Your task to perform on an android device: Show me recent news Image 0: 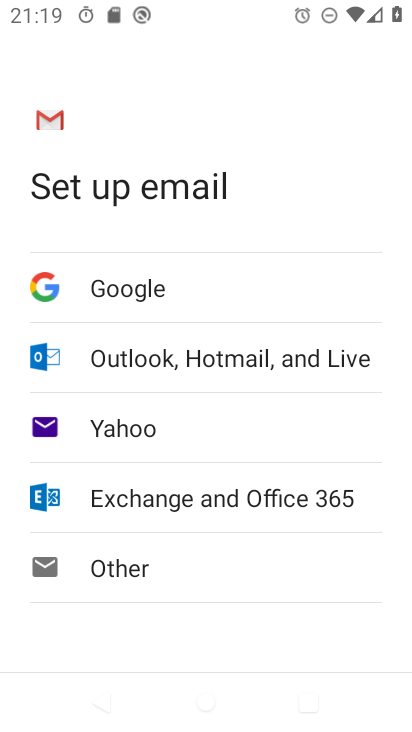
Step 0: press home button
Your task to perform on an android device: Show me recent news Image 1: 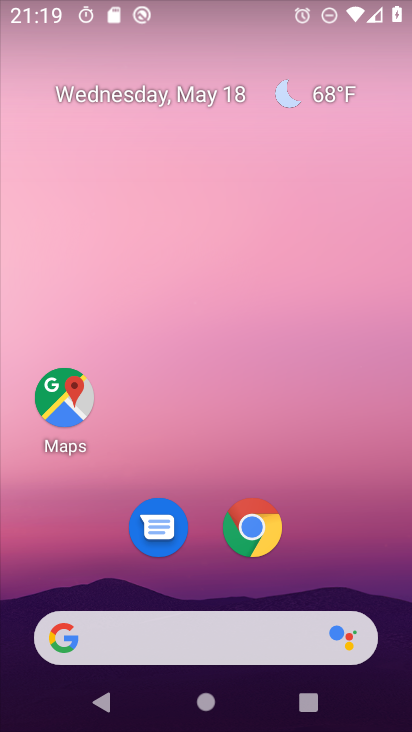
Step 1: drag from (390, 667) to (359, 319)
Your task to perform on an android device: Show me recent news Image 2: 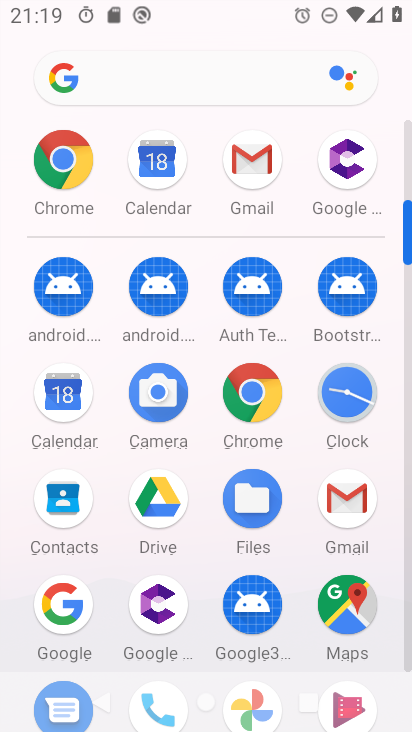
Step 2: drag from (409, 213) to (403, 177)
Your task to perform on an android device: Show me recent news Image 3: 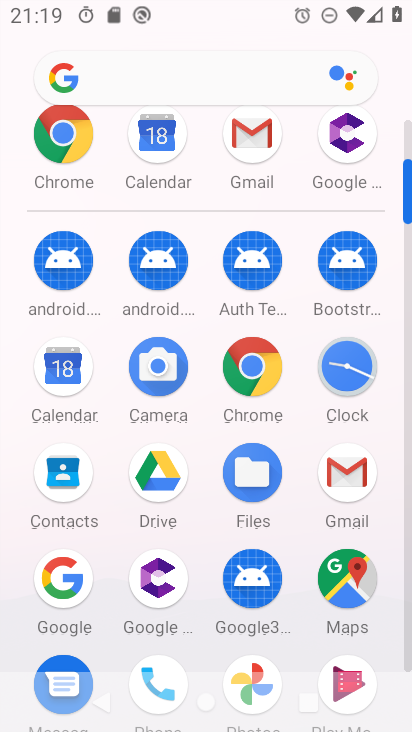
Step 3: click (39, 592)
Your task to perform on an android device: Show me recent news Image 4: 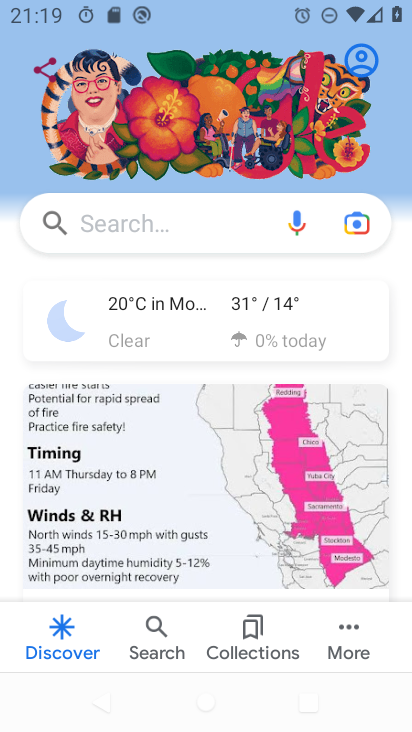
Step 4: task complete